Your task to perform on an android device: open device folders in google photos Image 0: 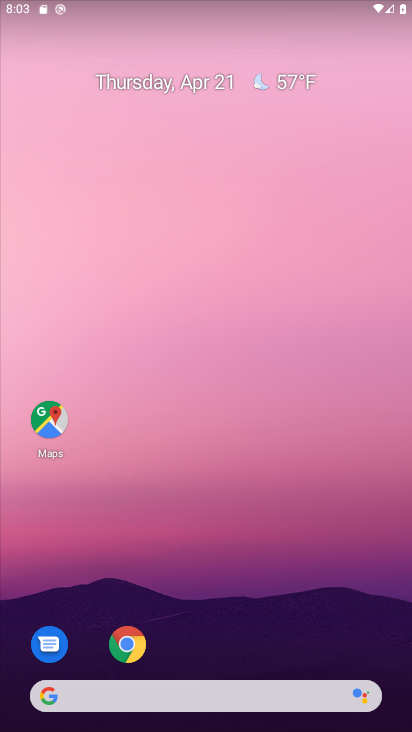
Step 0: drag from (239, 600) to (249, 24)
Your task to perform on an android device: open device folders in google photos Image 1: 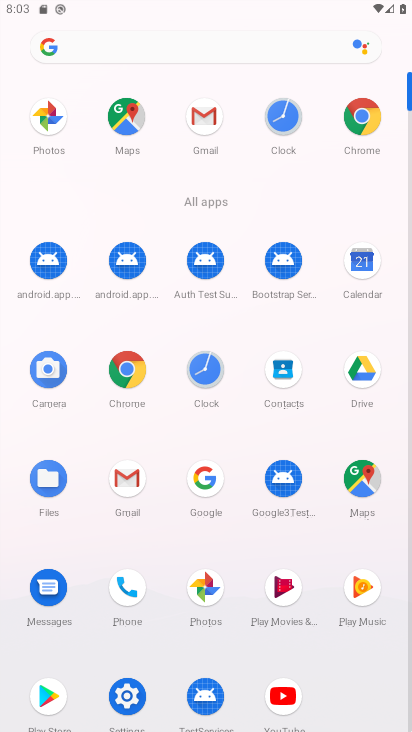
Step 1: click (213, 577)
Your task to perform on an android device: open device folders in google photos Image 2: 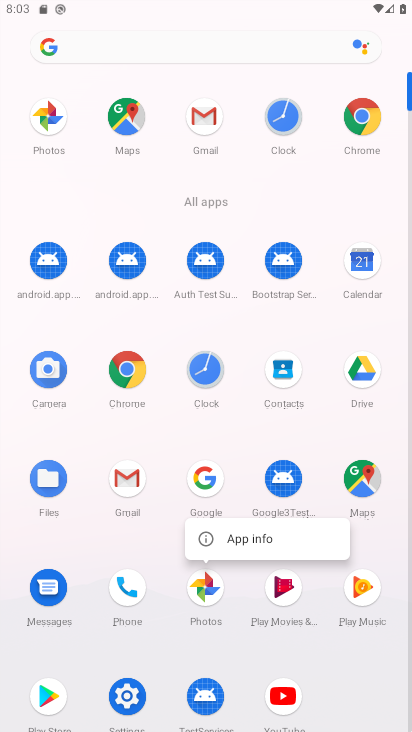
Step 2: click (211, 592)
Your task to perform on an android device: open device folders in google photos Image 3: 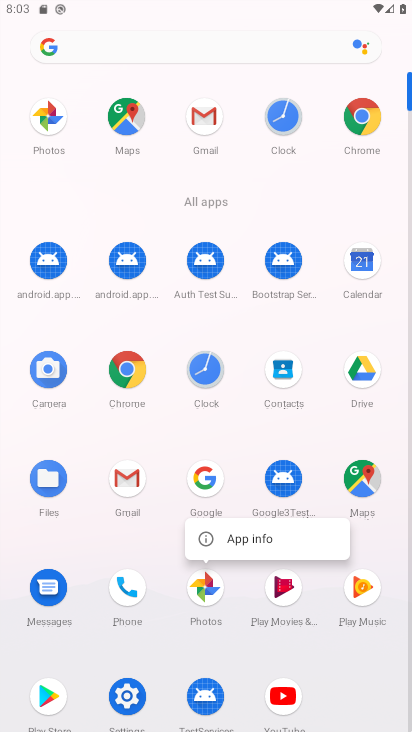
Step 3: click (209, 587)
Your task to perform on an android device: open device folders in google photos Image 4: 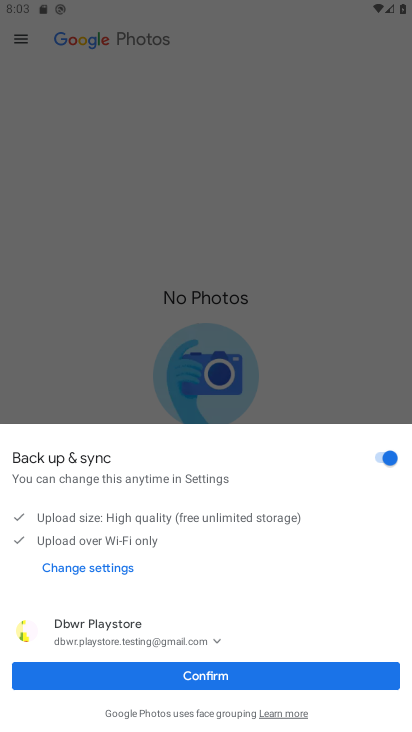
Step 4: click (179, 678)
Your task to perform on an android device: open device folders in google photos Image 5: 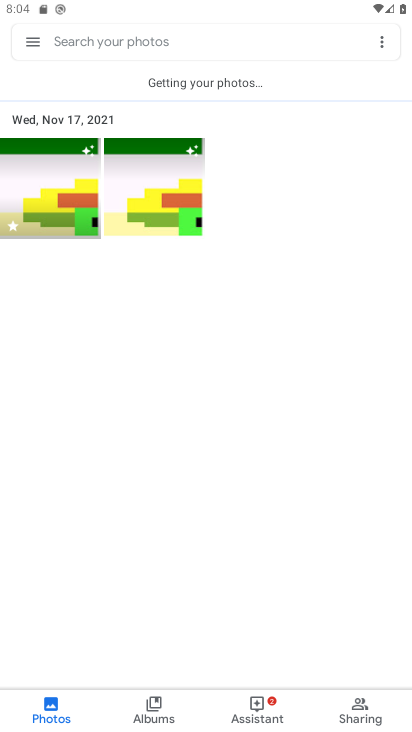
Step 5: click (36, 42)
Your task to perform on an android device: open device folders in google photos Image 6: 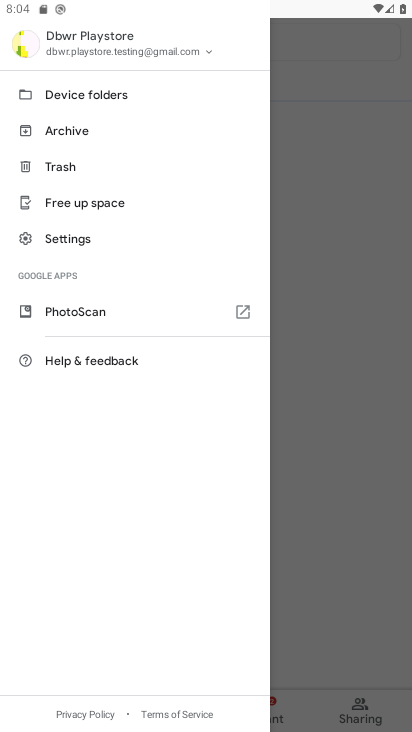
Step 6: click (106, 91)
Your task to perform on an android device: open device folders in google photos Image 7: 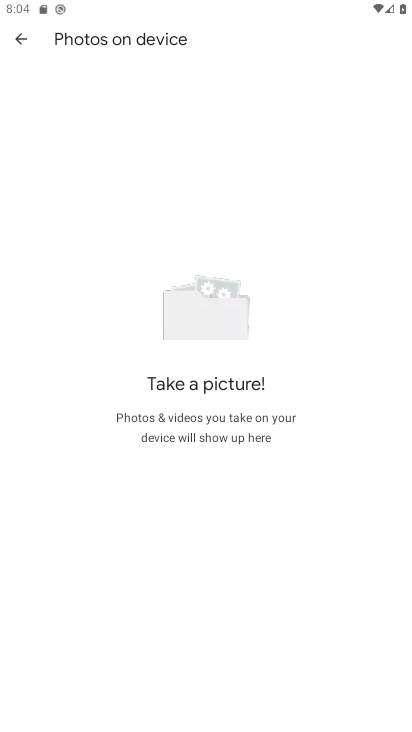
Step 7: task complete